Your task to perform on an android device: toggle notifications settings in the gmail app Image 0: 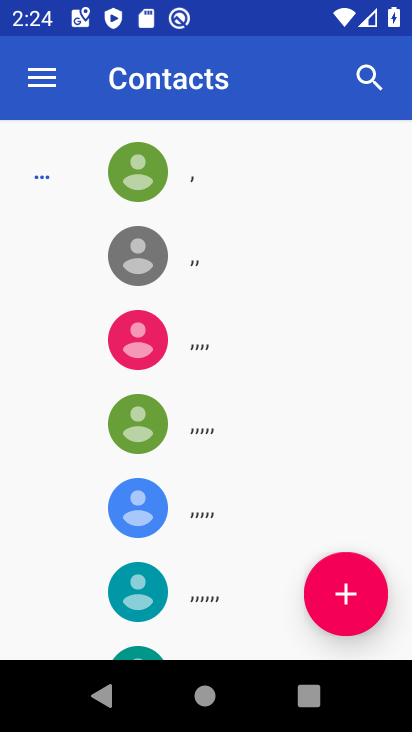
Step 0: press home button
Your task to perform on an android device: toggle notifications settings in the gmail app Image 1: 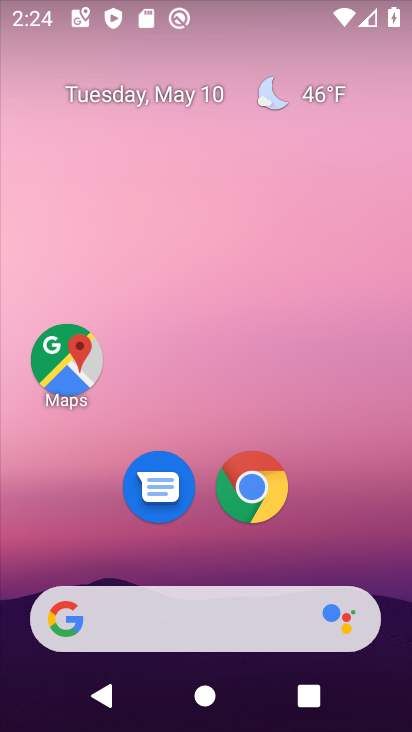
Step 1: drag from (359, 509) to (254, 115)
Your task to perform on an android device: toggle notifications settings in the gmail app Image 2: 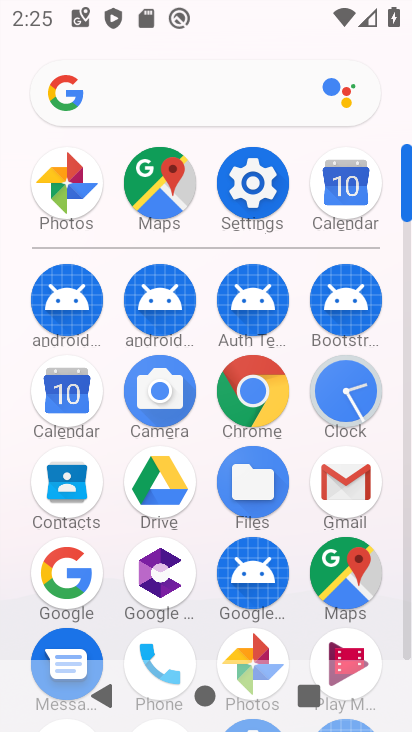
Step 2: click (356, 491)
Your task to perform on an android device: toggle notifications settings in the gmail app Image 3: 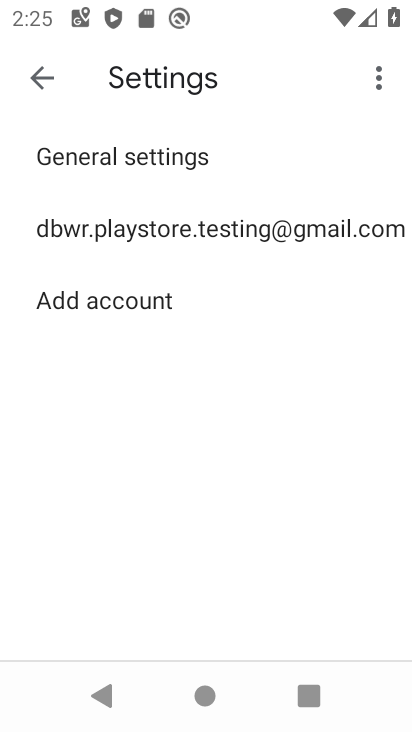
Step 3: click (124, 217)
Your task to perform on an android device: toggle notifications settings in the gmail app Image 4: 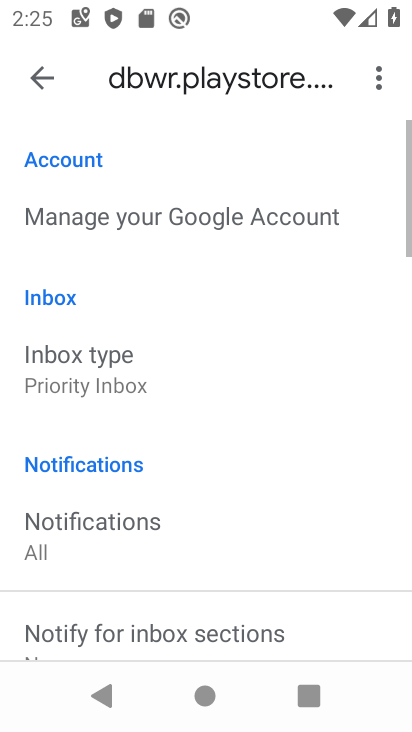
Step 4: drag from (265, 577) to (275, 160)
Your task to perform on an android device: toggle notifications settings in the gmail app Image 5: 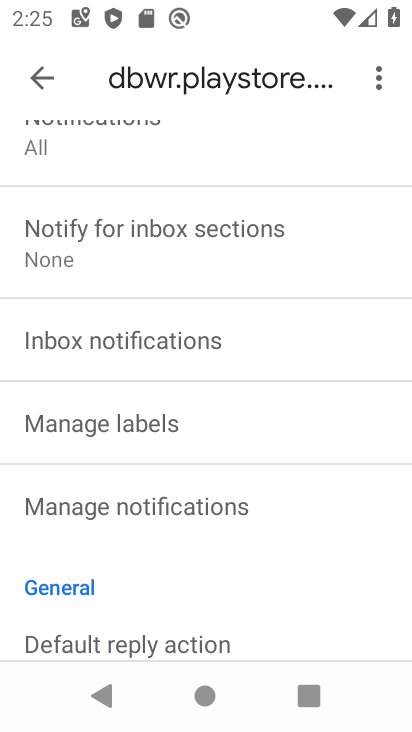
Step 5: click (163, 492)
Your task to perform on an android device: toggle notifications settings in the gmail app Image 6: 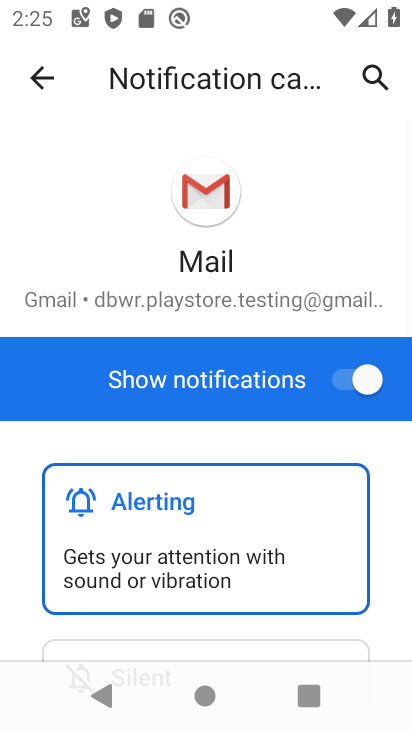
Step 6: click (342, 378)
Your task to perform on an android device: toggle notifications settings in the gmail app Image 7: 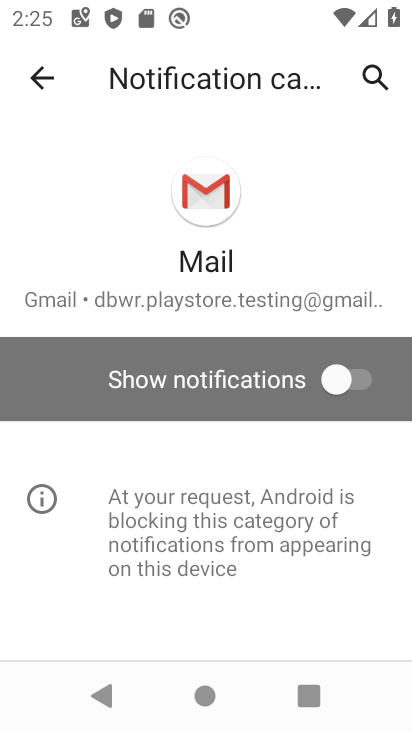
Step 7: task complete